Your task to perform on an android device: turn smart compose on in the gmail app Image 0: 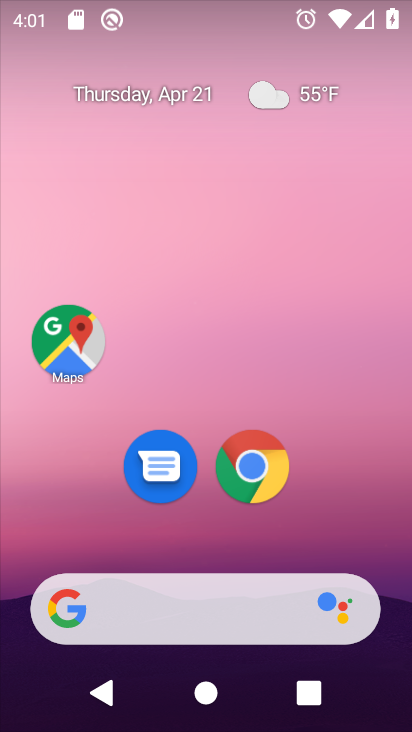
Step 0: drag from (217, 553) to (251, 65)
Your task to perform on an android device: turn smart compose on in the gmail app Image 1: 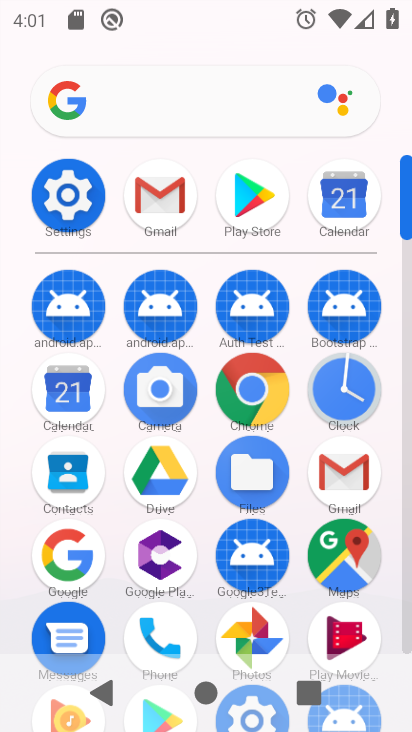
Step 1: click (152, 197)
Your task to perform on an android device: turn smart compose on in the gmail app Image 2: 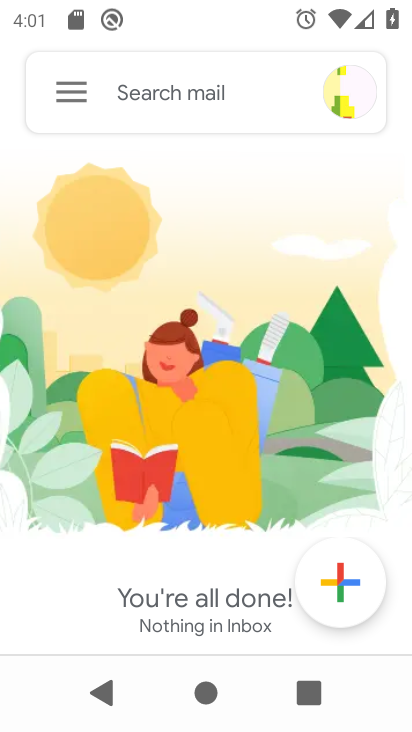
Step 2: click (76, 87)
Your task to perform on an android device: turn smart compose on in the gmail app Image 3: 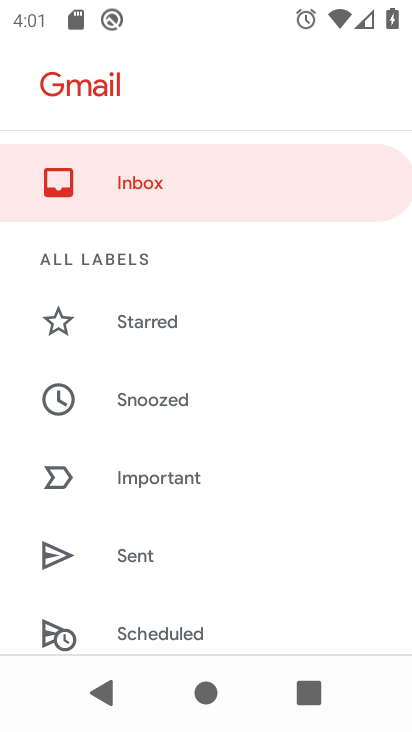
Step 3: drag from (149, 502) to (226, 152)
Your task to perform on an android device: turn smart compose on in the gmail app Image 4: 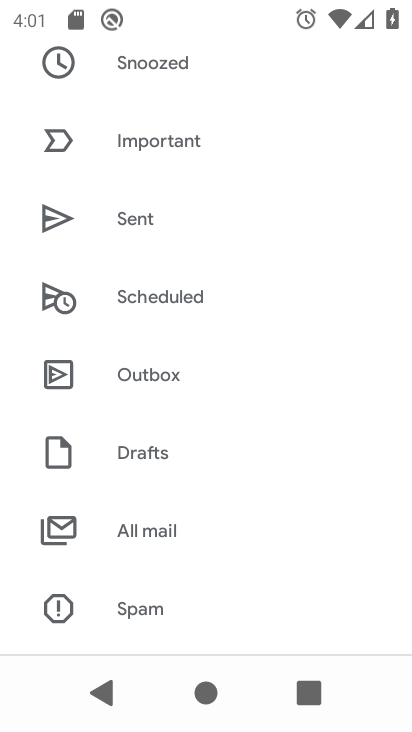
Step 4: drag from (180, 574) to (252, 77)
Your task to perform on an android device: turn smart compose on in the gmail app Image 5: 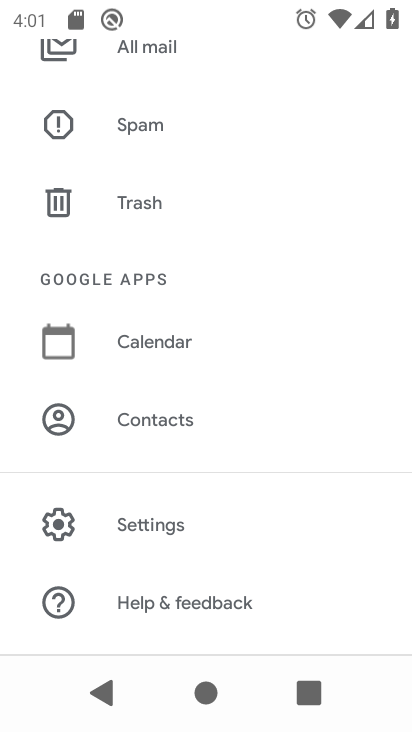
Step 5: click (222, 509)
Your task to perform on an android device: turn smart compose on in the gmail app Image 6: 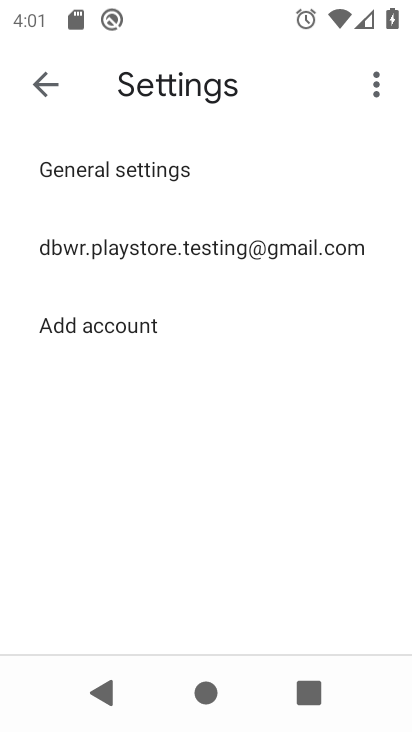
Step 6: click (190, 249)
Your task to perform on an android device: turn smart compose on in the gmail app Image 7: 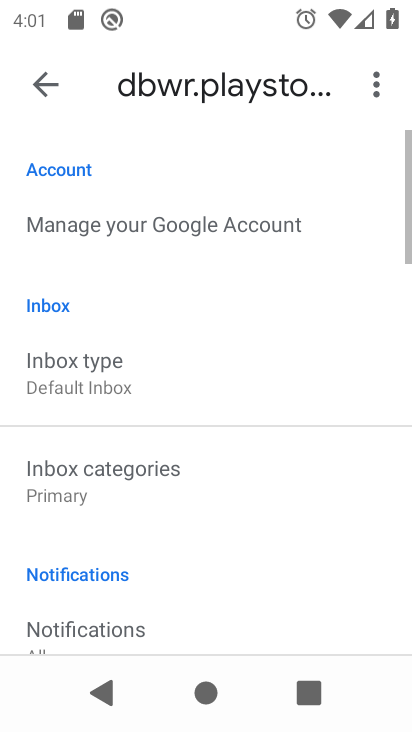
Step 7: task complete